Your task to perform on an android device: View the shopping cart on walmart. Search for "panasonic triple a" on walmart, select the first entry, add it to the cart, then select checkout. Image 0: 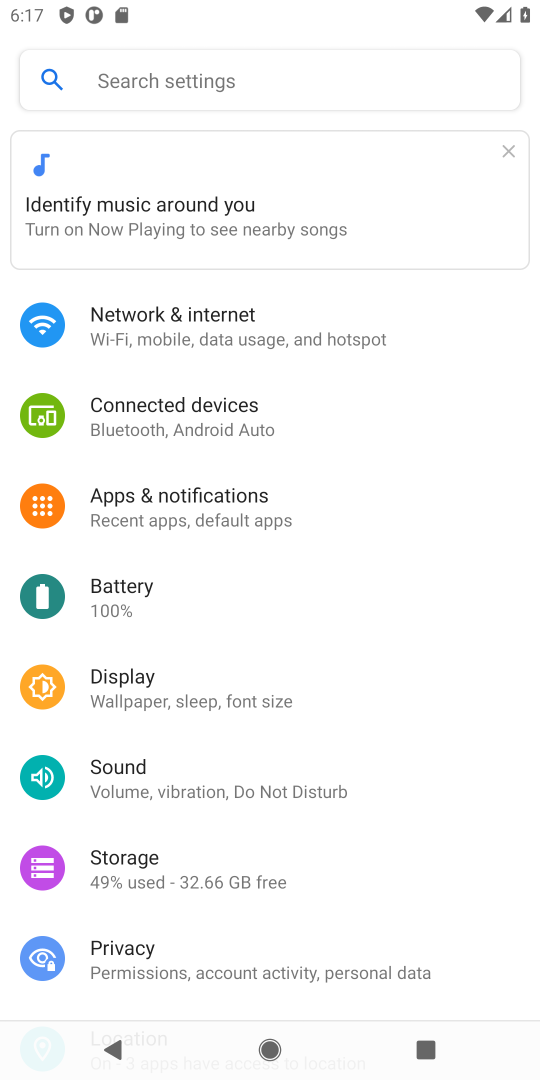
Step 0: press home button
Your task to perform on an android device: View the shopping cart on walmart. Search for "panasonic triple a" on walmart, select the first entry, add it to the cart, then select checkout. Image 1: 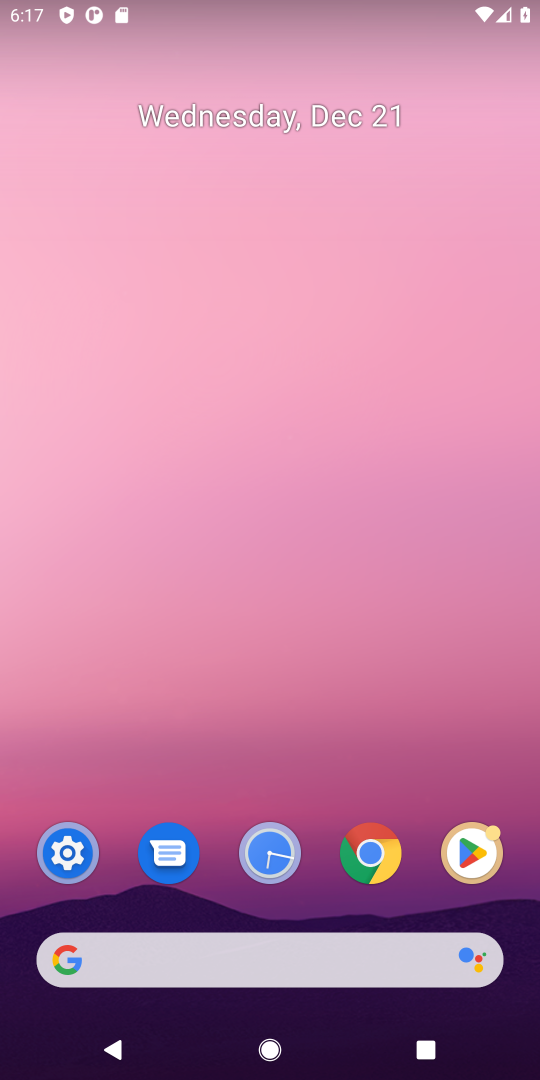
Step 1: click (391, 857)
Your task to perform on an android device: View the shopping cart on walmart. Search for "panasonic triple a" on walmart, select the first entry, add it to the cart, then select checkout. Image 2: 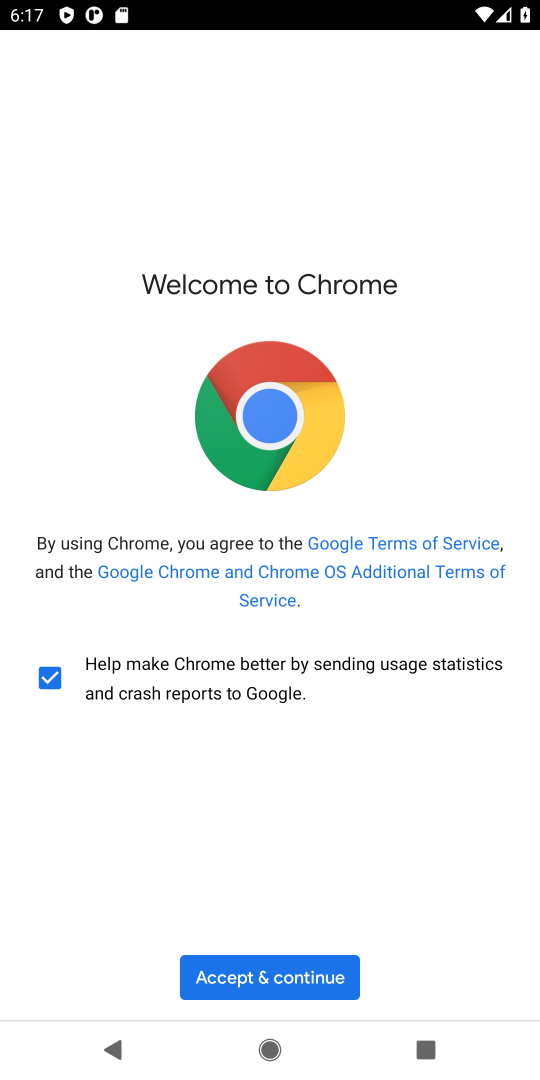
Step 2: click (276, 975)
Your task to perform on an android device: View the shopping cart on walmart. Search for "panasonic triple a" on walmart, select the first entry, add it to the cart, then select checkout. Image 3: 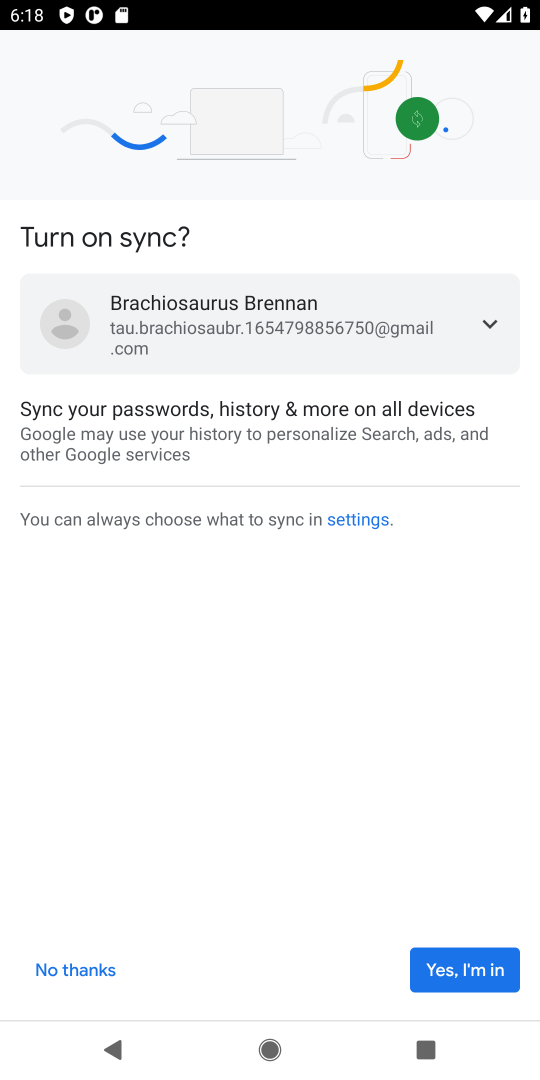
Step 3: click (447, 971)
Your task to perform on an android device: View the shopping cart on walmart. Search for "panasonic triple a" on walmart, select the first entry, add it to the cart, then select checkout. Image 4: 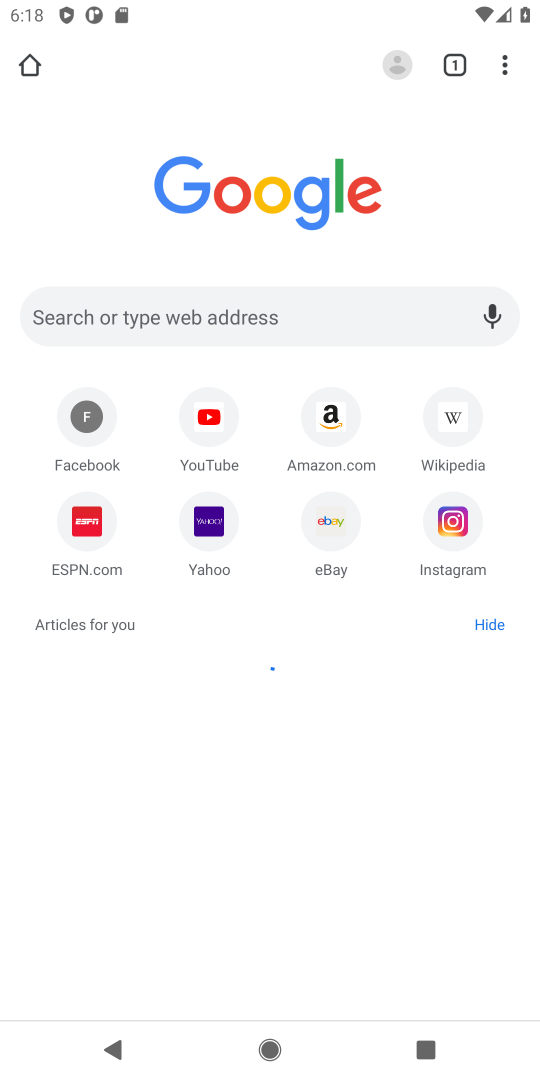
Step 4: click (217, 306)
Your task to perform on an android device: View the shopping cart on walmart. Search for "panasonic triple a" on walmart, select the first entry, add it to the cart, then select checkout. Image 5: 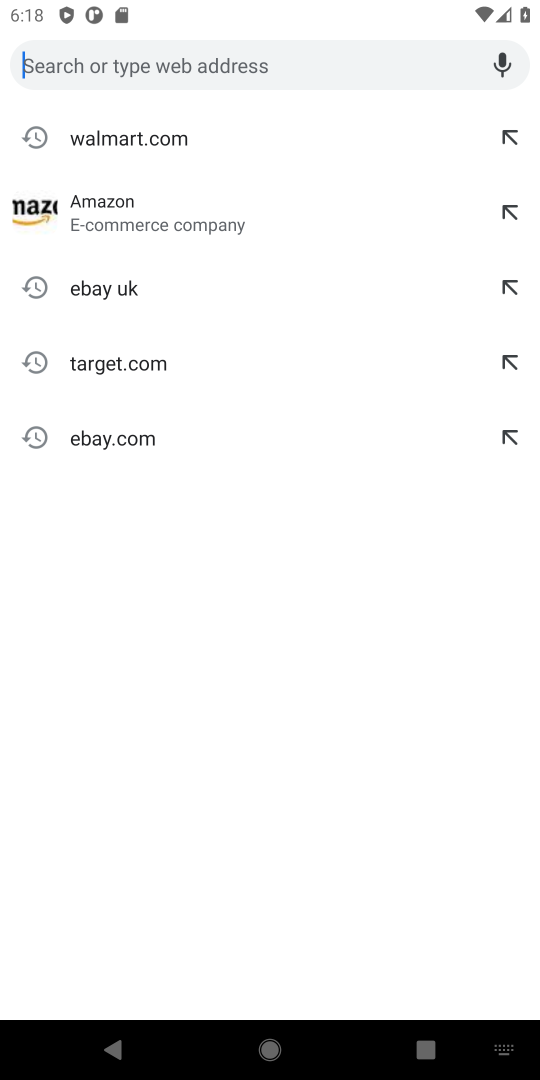
Step 5: click (176, 135)
Your task to perform on an android device: View the shopping cart on walmart. Search for "panasonic triple a" on walmart, select the first entry, add it to the cart, then select checkout. Image 6: 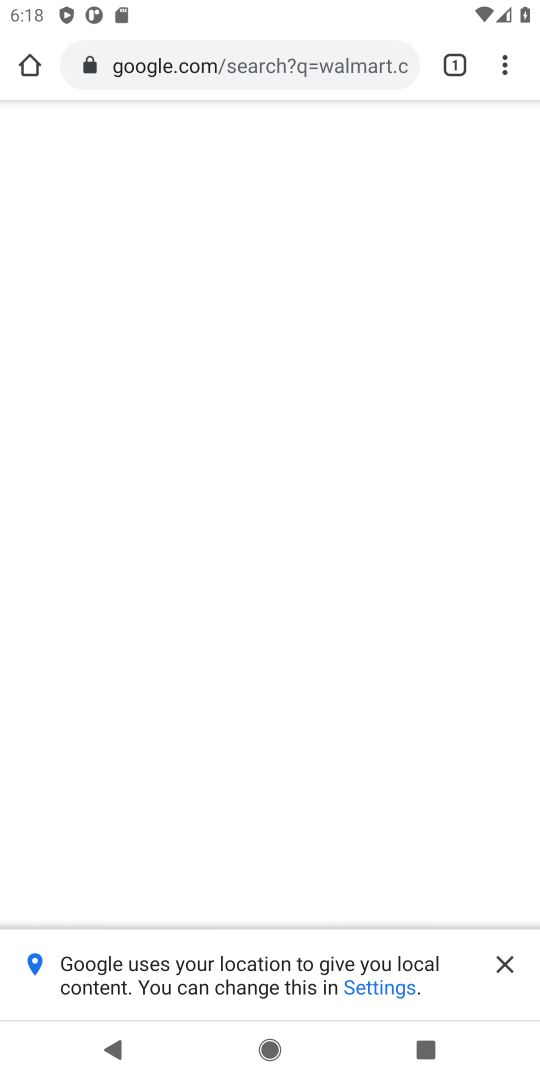
Step 6: click (493, 961)
Your task to perform on an android device: View the shopping cart on walmart. Search for "panasonic triple a" on walmart, select the first entry, add it to the cart, then select checkout. Image 7: 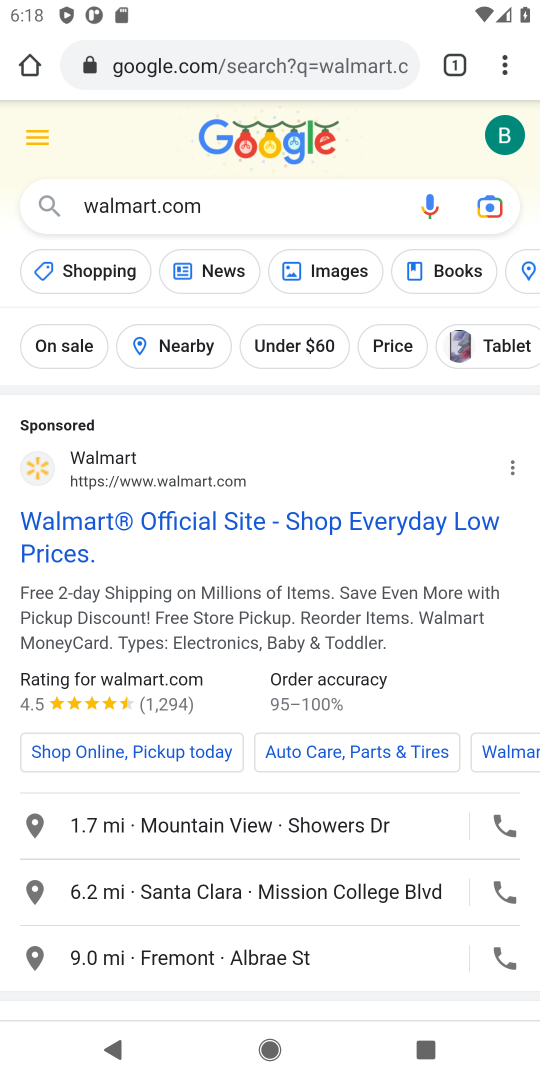
Step 7: click (398, 541)
Your task to perform on an android device: View the shopping cart on walmart. Search for "panasonic triple a" on walmart, select the first entry, add it to the cart, then select checkout. Image 8: 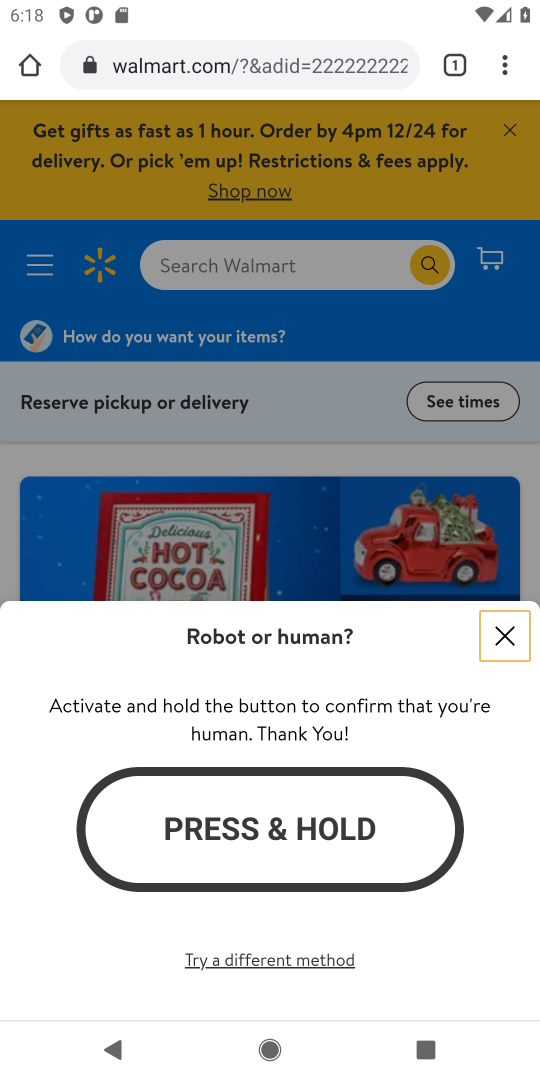
Step 8: click (513, 643)
Your task to perform on an android device: View the shopping cart on walmart. Search for "panasonic triple a" on walmart, select the first entry, add it to the cart, then select checkout. Image 9: 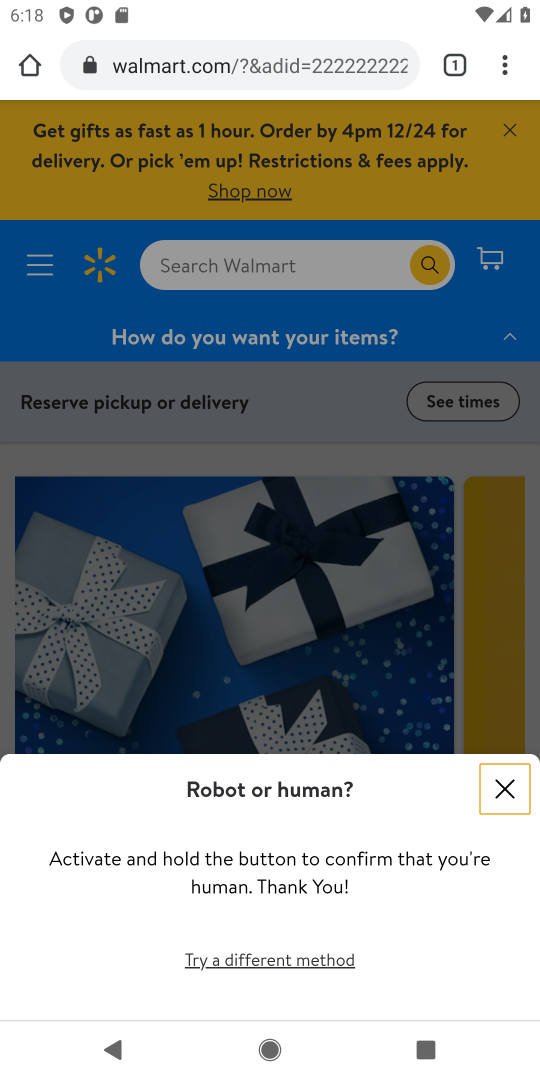
Step 9: click (299, 266)
Your task to perform on an android device: View the shopping cart on walmart. Search for "panasonic triple a" on walmart, select the first entry, add it to the cart, then select checkout. Image 10: 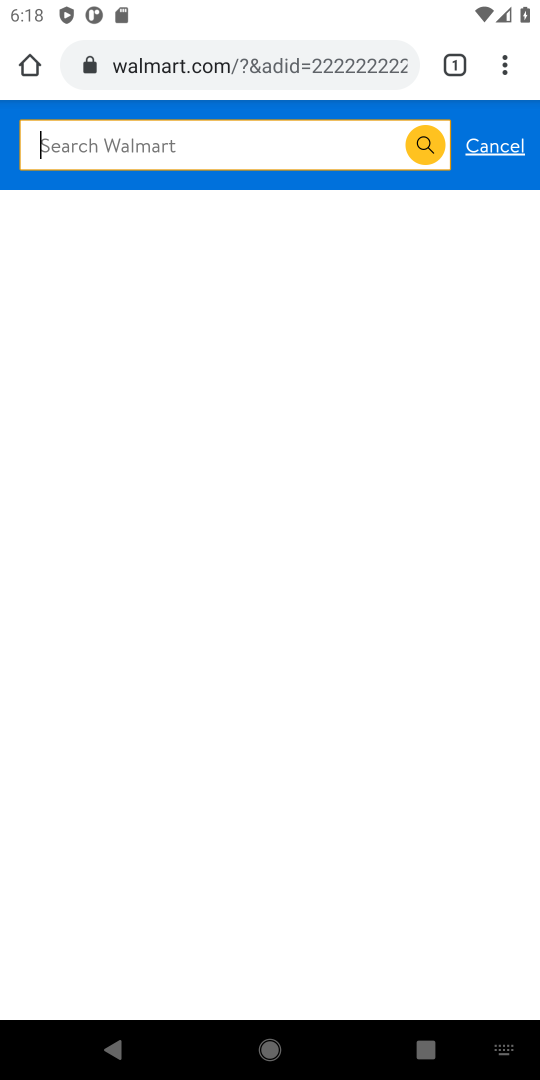
Step 10: type "panasonic triple a batterues"
Your task to perform on an android device: View the shopping cart on walmart. Search for "panasonic triple a" on walmart, select the first entry, add it to the cart, then select checkout. Image 11: 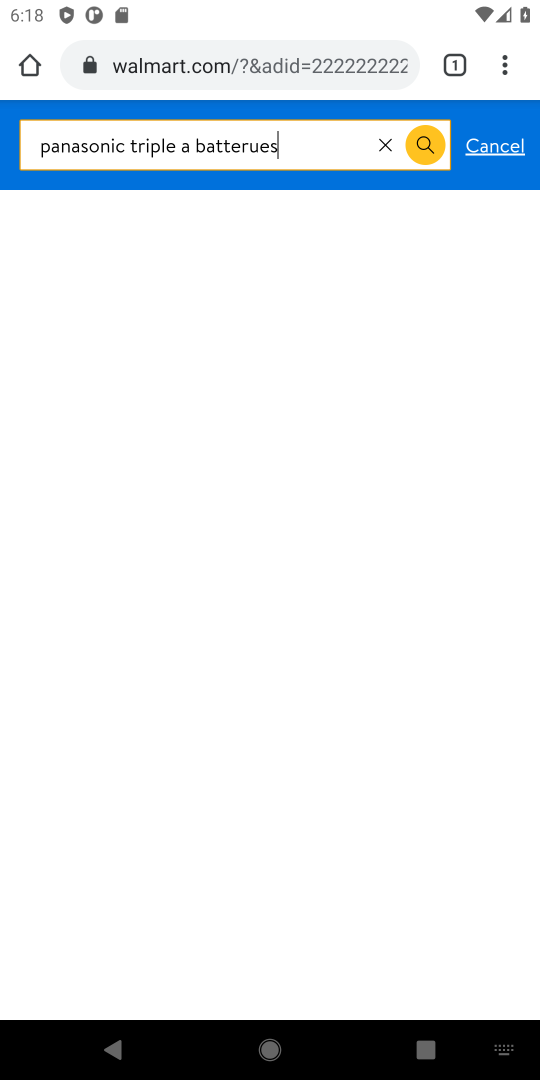
Step 11: click (423, 149)
Your task to perform on an android device: View the shopping cart on walmart. Search for "panasonic triple a" on walmart, select the first entry, add it to the cart, then select checkout. Image 12: 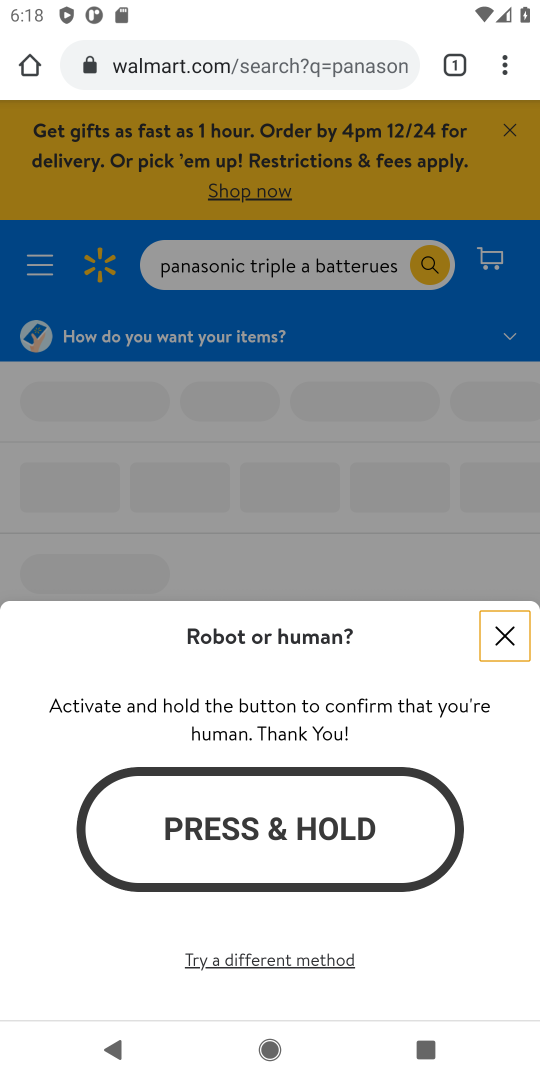
Step 12: click (320, 819)
Your task to perform on an android device: View the shopping cart on walmart. Search for "panasonic triple a" on walmart, select the first entry, add it to the cart, then select checkout. Image 13: 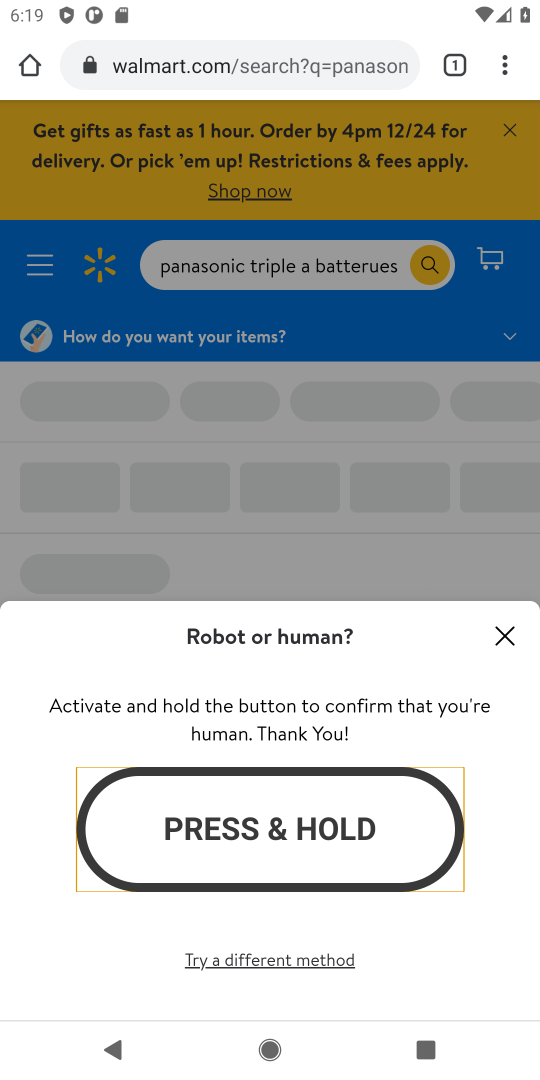
Step 13: click (513, 630)
Your task to perform on an android device: View the shopping cart on walmart. Search for "panasonic triple a" on walmart, select the first entry, add it to the cart, then select checkout. Image 14: 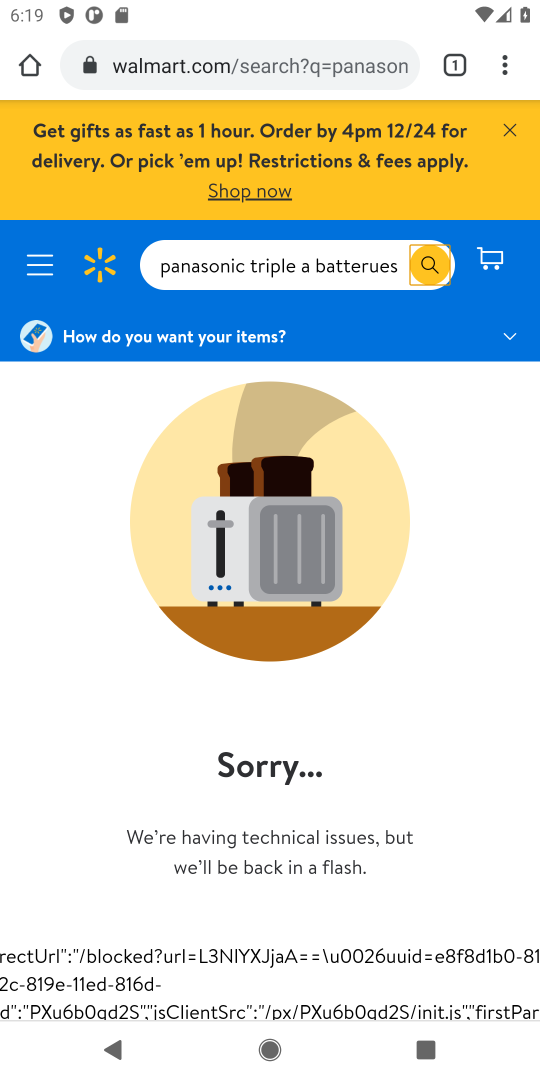
Step 14: task complete